Your task to perform on an android device: add a label to a message in the gmail app Image 0: 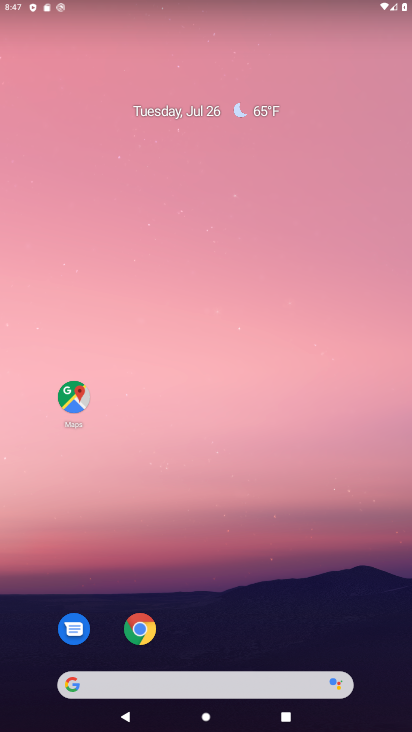
Step 0: drag from (363, 587) to (207, 59)
Your task to perform on an android device: add a label to a message in the gmail app Image 1: 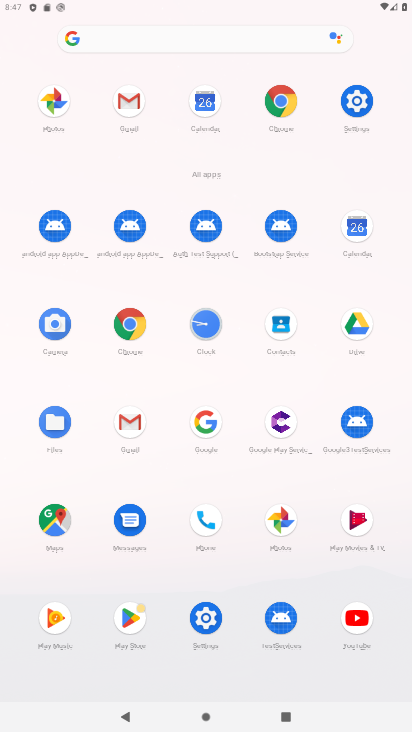
Step 1: click (136, 413)
Your task to perform on an android device: add a label to a message in the gmail app Image 2: 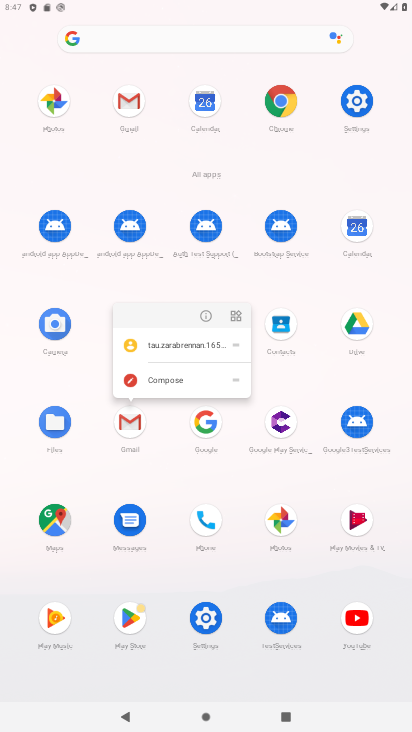
Step 2: click (132, 419)
Your task to perform on an android device: add a label to a message in the gmail app Image 3: 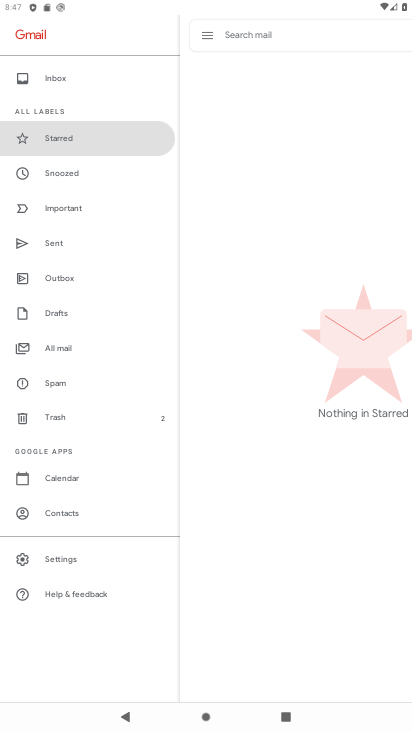
Step 3: click (61, 75)
Your task to perform on an android device: add a label to a message in the gmail app Image 4: 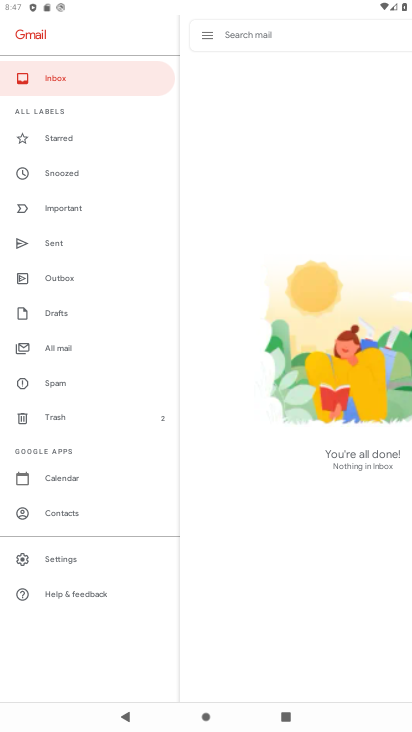
Step 4: click (56, 353)
Your task to perform on an android device: add a label to a message in the gmail app Image 5: 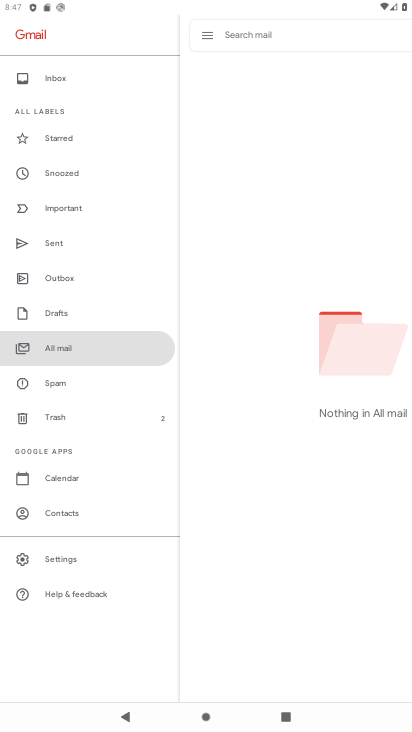
Step 5: task complete